Your task to perform on an android device: Is it going to rain tomorrow? Image 0: 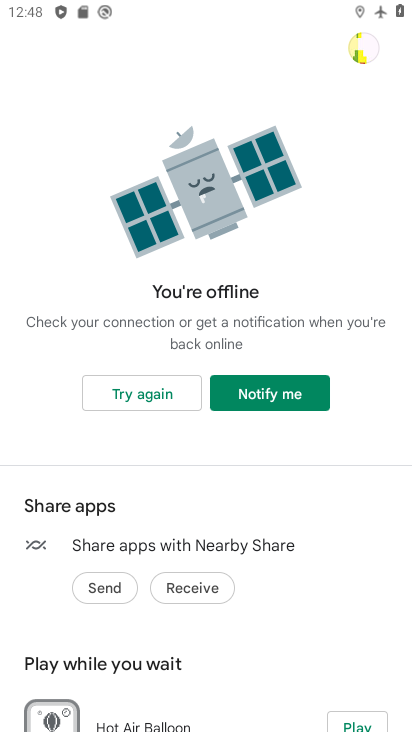
Step 0: press home button
Your task to perform on an android device: Is it going to rain tomorrow? Image 1: 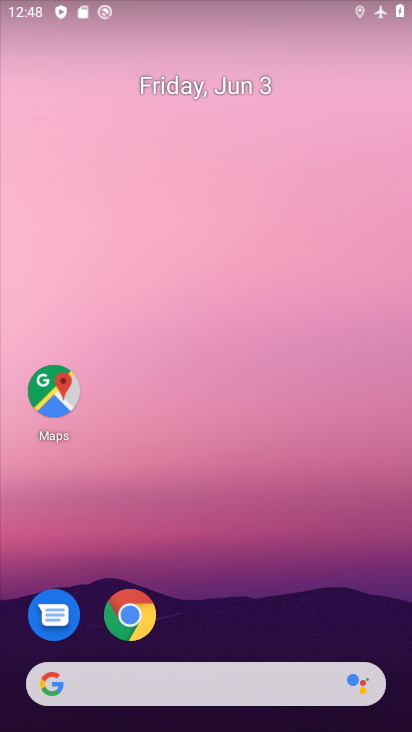
Step 1: click (218, 681)
Your task to perform on an android device: Is it going to rain tomorrow? Image 2: 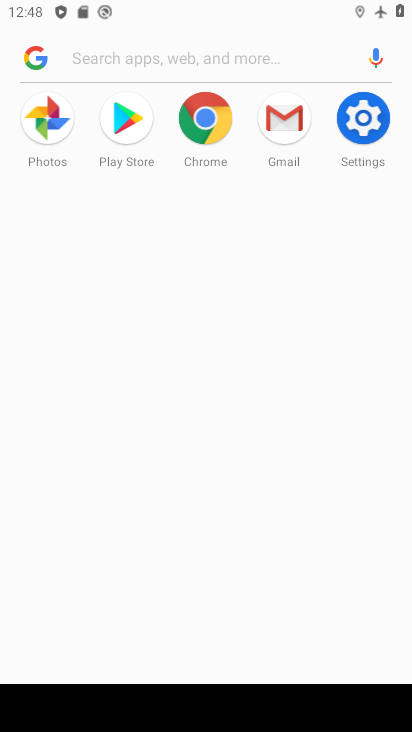
Step 2: type "weather"
Your task to perform on an android device: Is it going to rain tomorrow? Image 3: 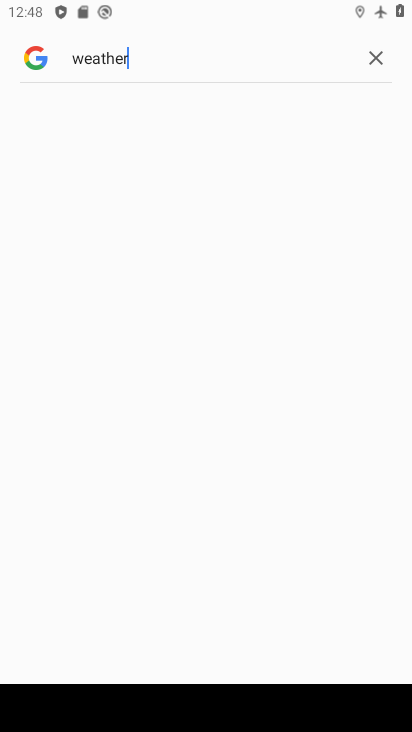
Step 3: click (256, 133)
Your task to perform on an android device: Is it going to rain tomorrow? Image 4: 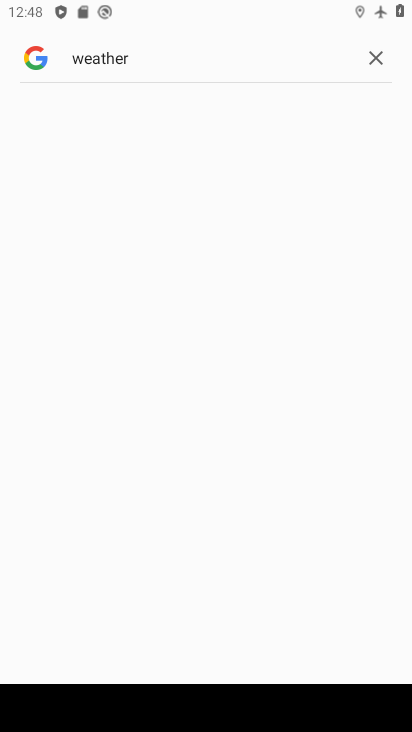
Step 4: click (173, 59)
Your task to perform on an android device: Is it going to rain tomorrow? Image 5: 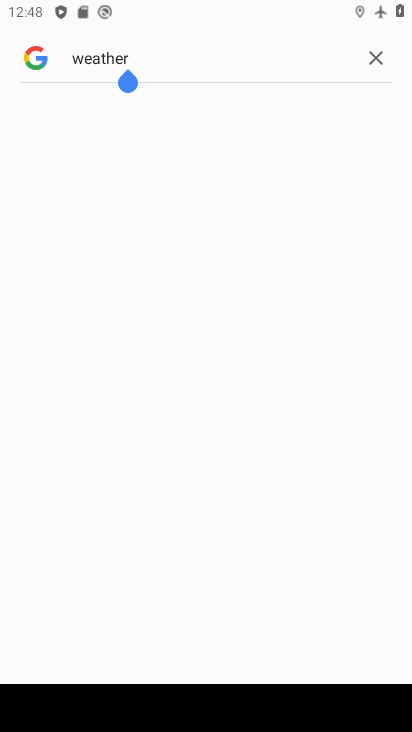
Step 5: task complete